Your task to perform on an android device: turn on location history Image 0: 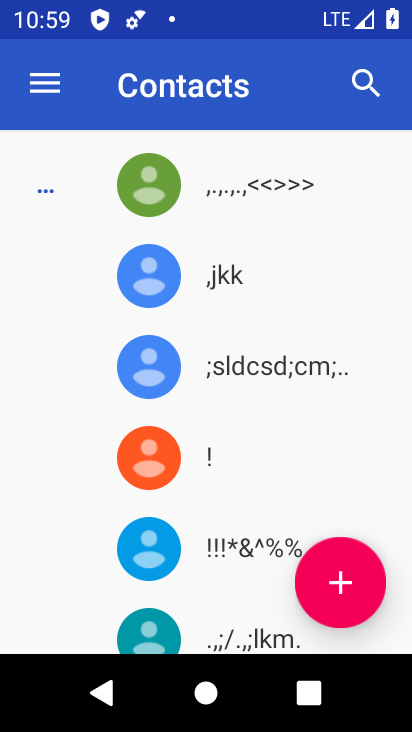
Step 0: click (343, 582)
Your task to perform on an android device: turn on location history Image 1: 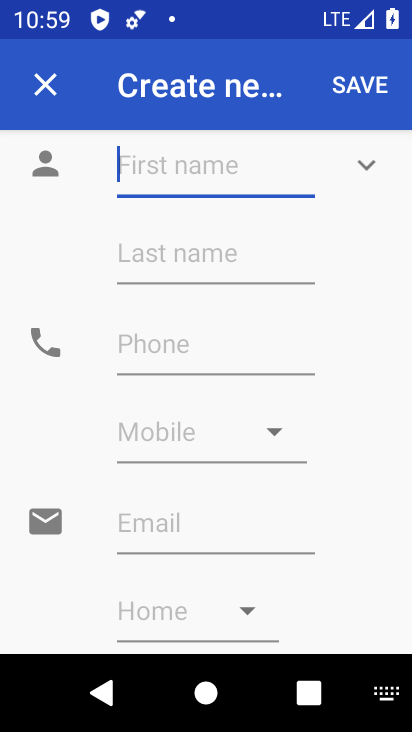
Step 1: press back button
Your task to perform on an android device: turn on location history Image 2: 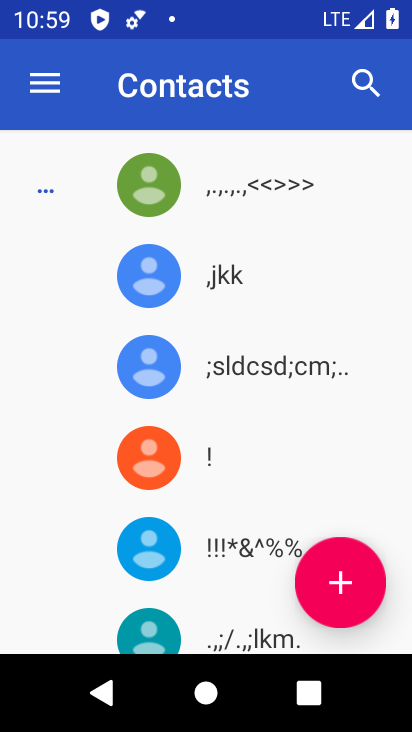
Step 2: press back button
Your task to perform on an android device: turn on location history Image 3: 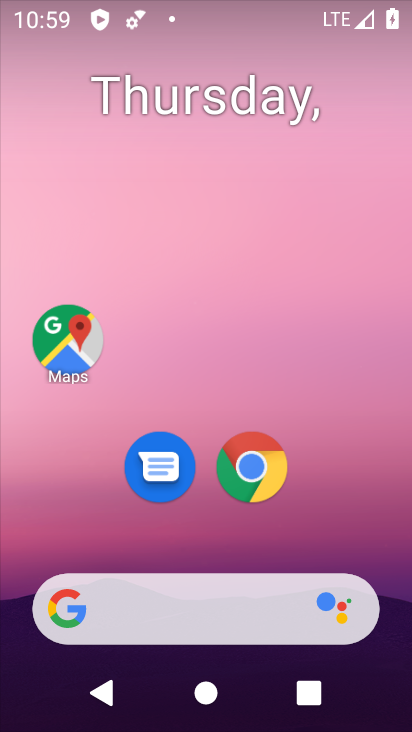
Step 3: drag from (214, 589) to (345, 88)
Your task to perform on an android device: turn on location history Image 4: 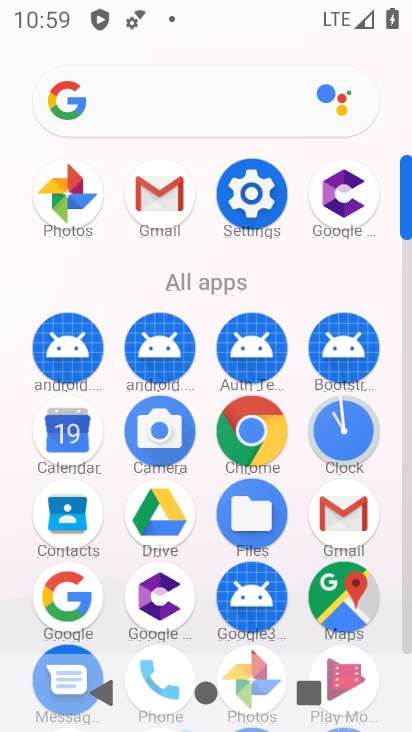
Step 4: click (243, 190)
Your task to perform on an android device: turn on location history Image 5: 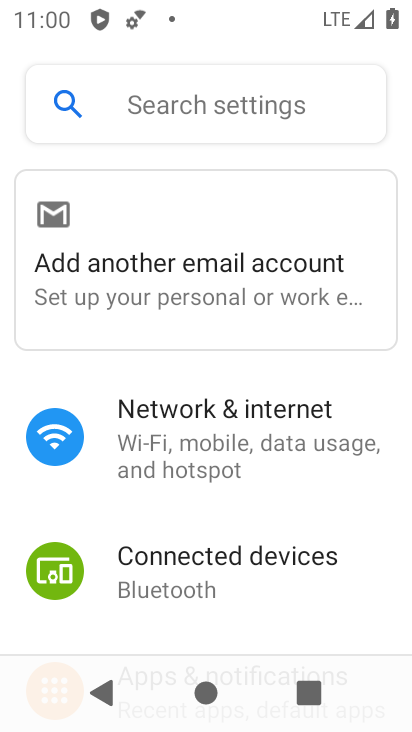
Step 5: drag from (178, 582) to (304, 115)
Your task to perform on an android device: turn on location history Image 6: 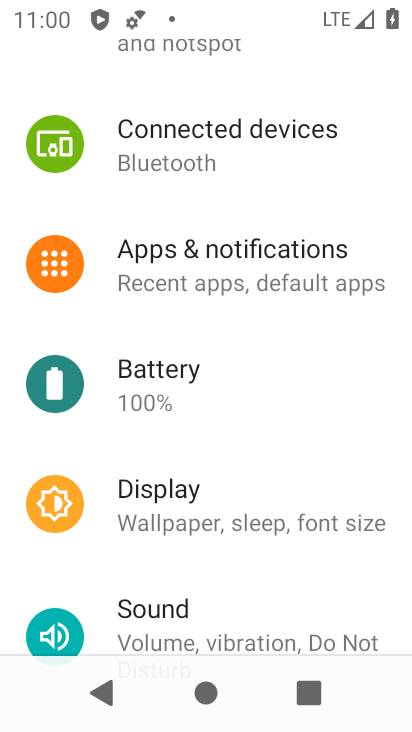
Step 6: drag from (176, 581) to (305, 40)
Your task to perform on an android device: turn on location history Image 7: 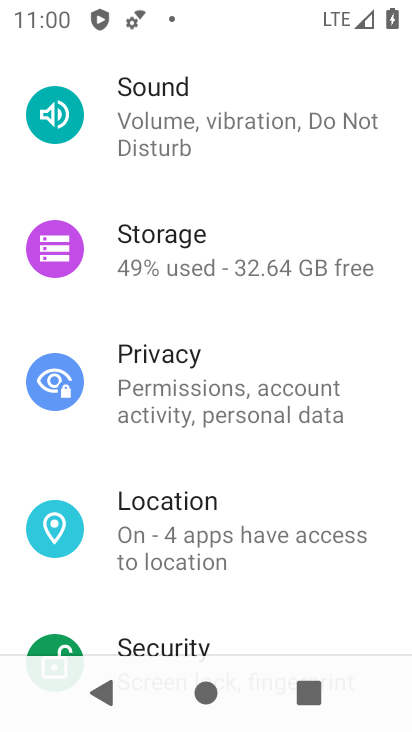
Step 7: click (209, 515)
Your task to perform on an android device: turn on location history Image 8: 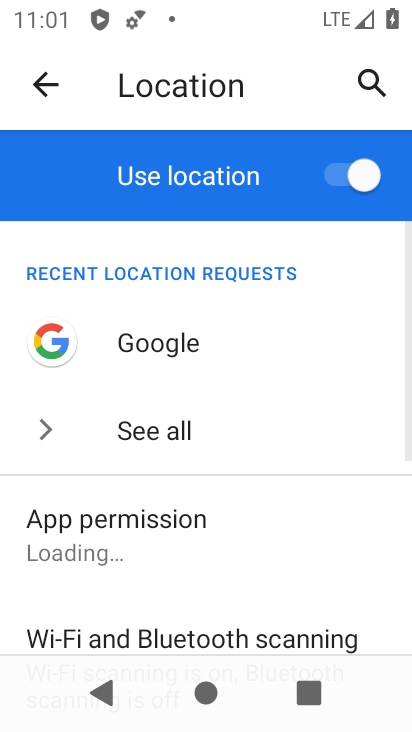
Step 8: drag from (208, 573) to (296, 133)
Your task to perform on an android device: turn on location history Image 9: 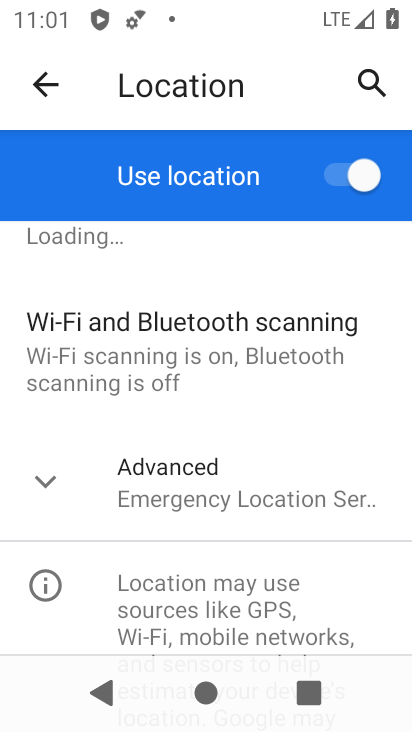
Step 9: click (219, 489)
Your task to perform on an android device: turn on location history Image 10: 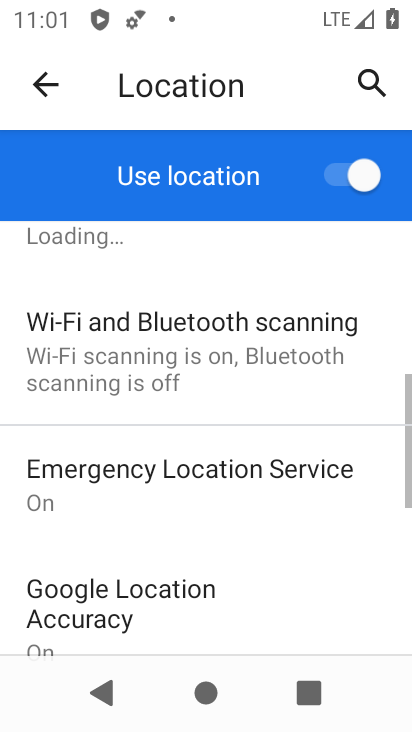
Step 10: drag from (189, 618) to (281, 233)
Your task to perform on an android device: turn on location history Image 11: 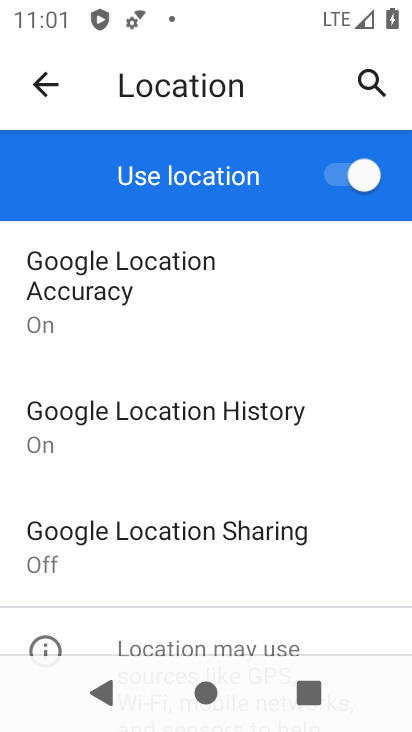
Step 11: click (215, 434)
Your task to perform on an android device: turn on location history Image 12: 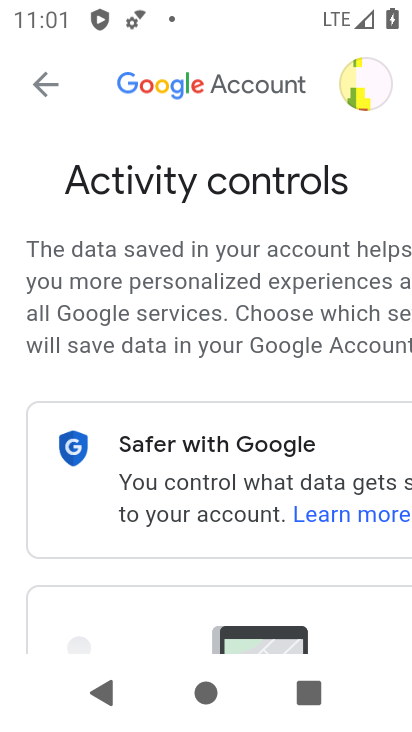
Step 12: task complete